Your task to perform on an android device: Open Reddit.com Image 0: 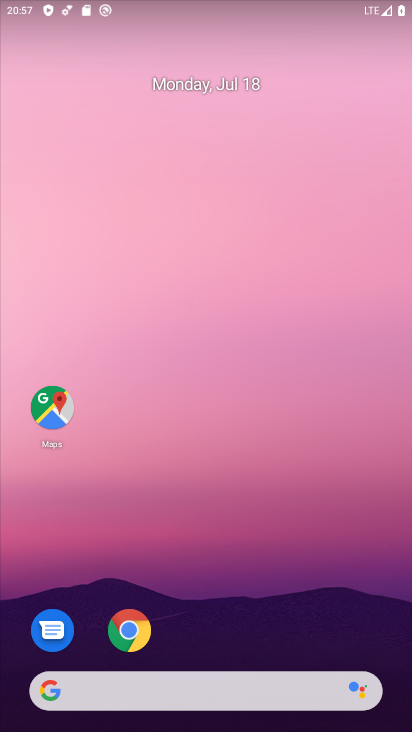
Step 0: click (118, 630)
Your task to perform on an android device: Open Reddit.com Image 1: 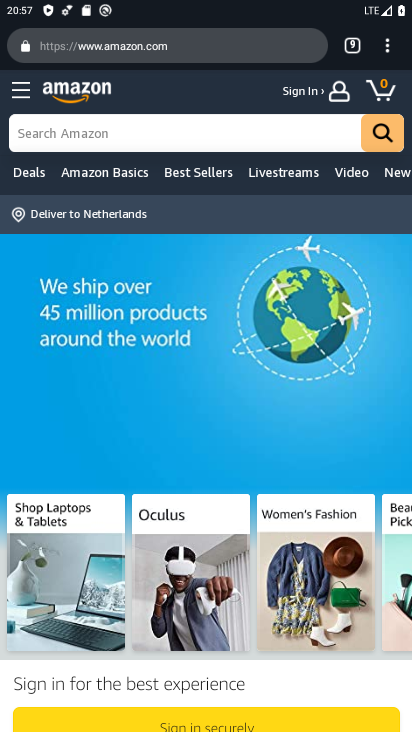
Step 1: click (401, 43)
Your task to perform on an android device: Open Reddit.com Image 2: 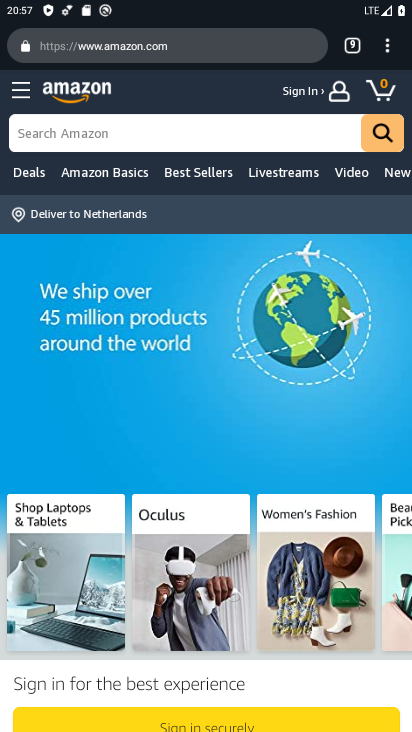
Step 2: click (382, 42)
Your task to perform on an android device: Open Reddit.com Image 3: 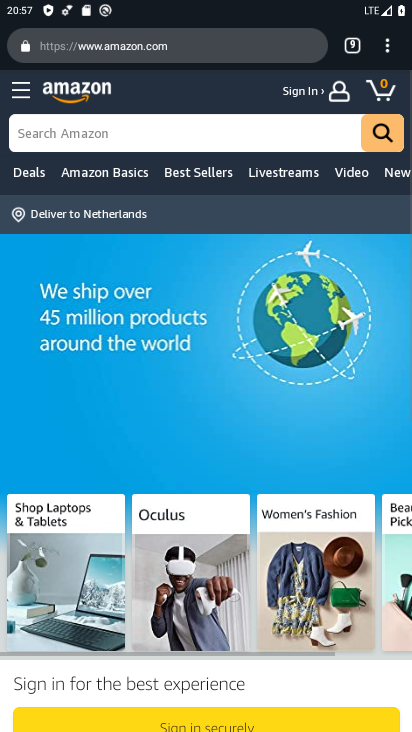
Step 3: click (394, 42)
Your task to perform on an android device: Open Reddit.com Image 4: 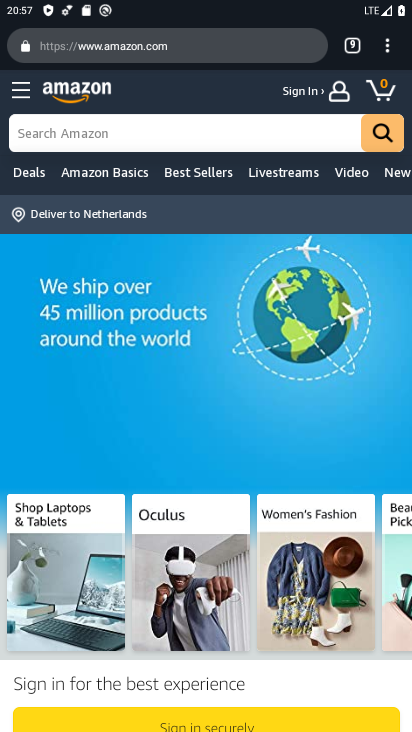
Step 4: click (394, 42)
Your task to perform on an android device: Open Reddit.com Image 5: 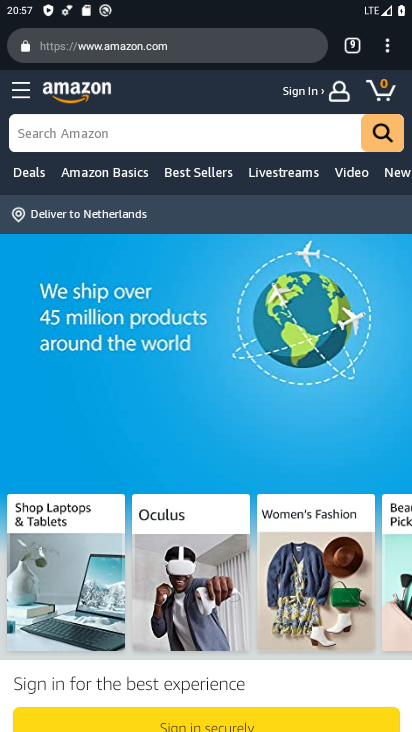
Step 5: click (386, 42)
Your task to perform on an android device: Open Reddit.com Image 6: 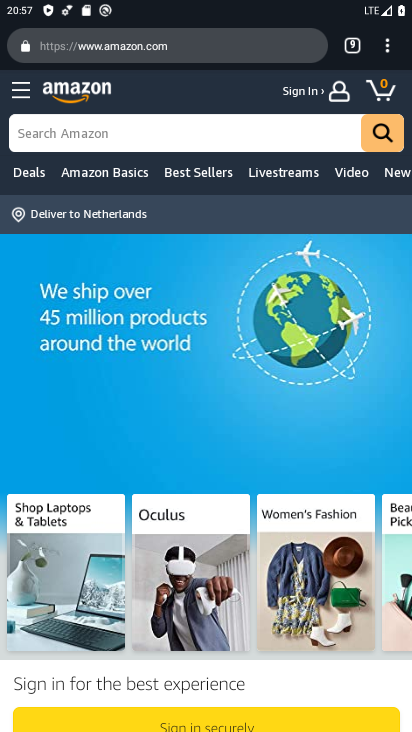
Step 6: click (386, 42)
Your task to perform on an android device: Open Reddit.com Image 7: 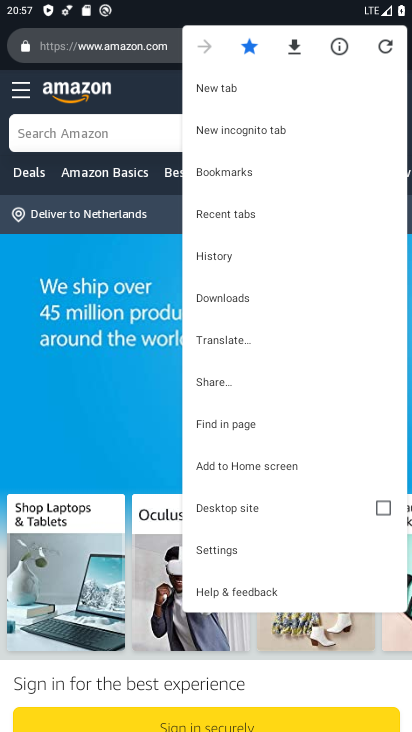
Step 7: click (241, 105)
Your task to perform on an android device: Open Reddit.com Image 8: 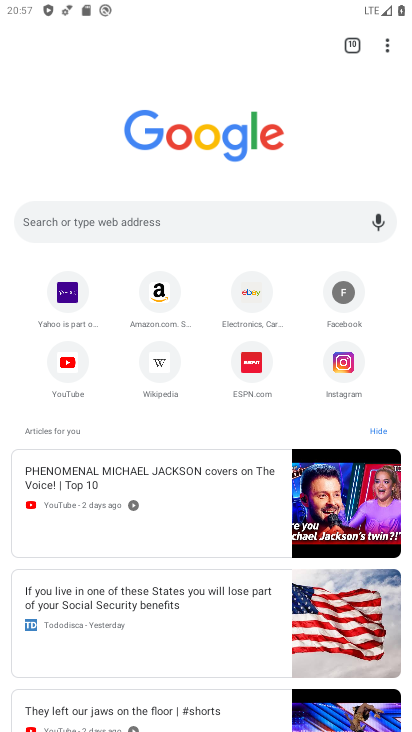
Step 8: click (206, 220)
Your task to perform on an android device: Open Reddit.com Image 9: 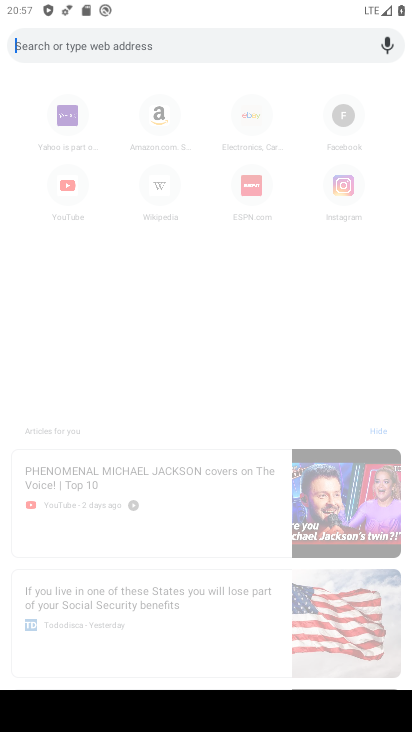
Step 9: type "Reddit.com "
Your task to perform on an android device: Open Reddit.com Image 10: 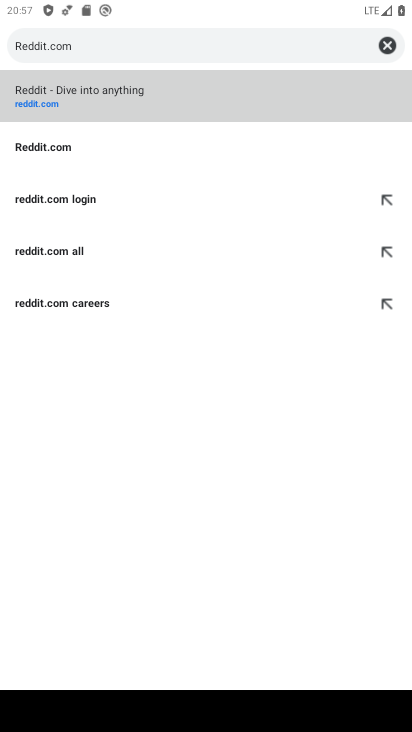
Step 10: click (252, 96)
Your task to perform on an android device: Open Reddit.com Image 11: 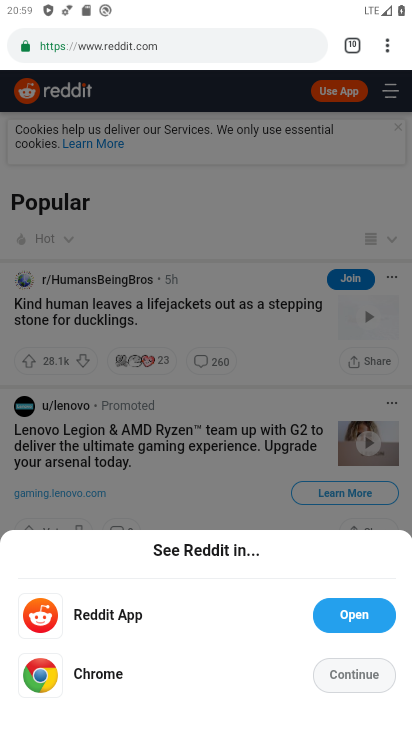
Step 11: task complete